Your task to perform on an android device: Add "razer huntsman" to the cart on amazon Image 0: 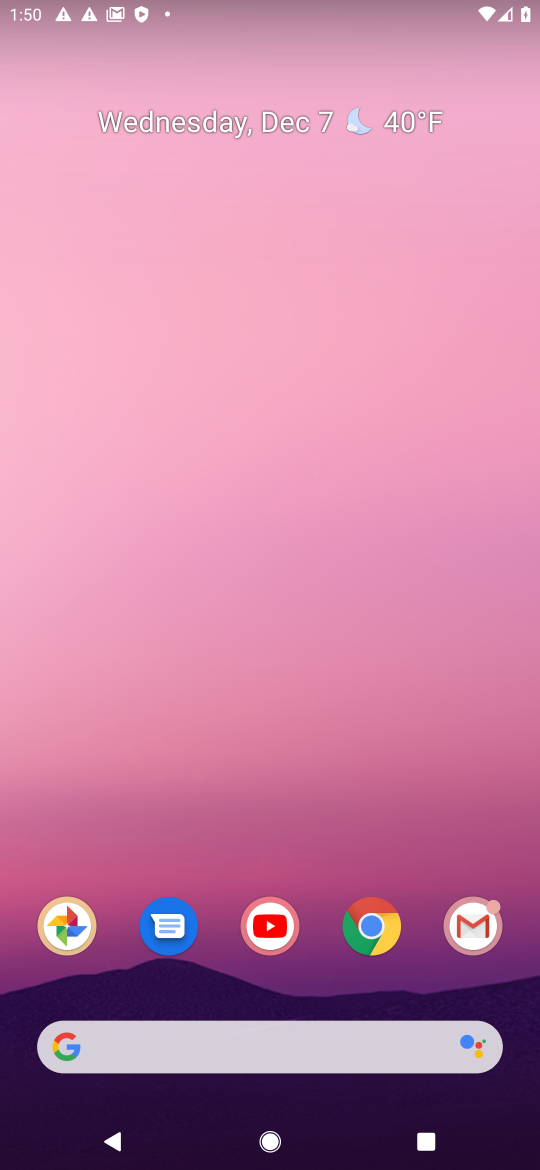
Step 0: drag from (387, 148) to (360, 270)
Your task to perform on an android device: Add "razer huntsman" to the cart on amazon Image 1: 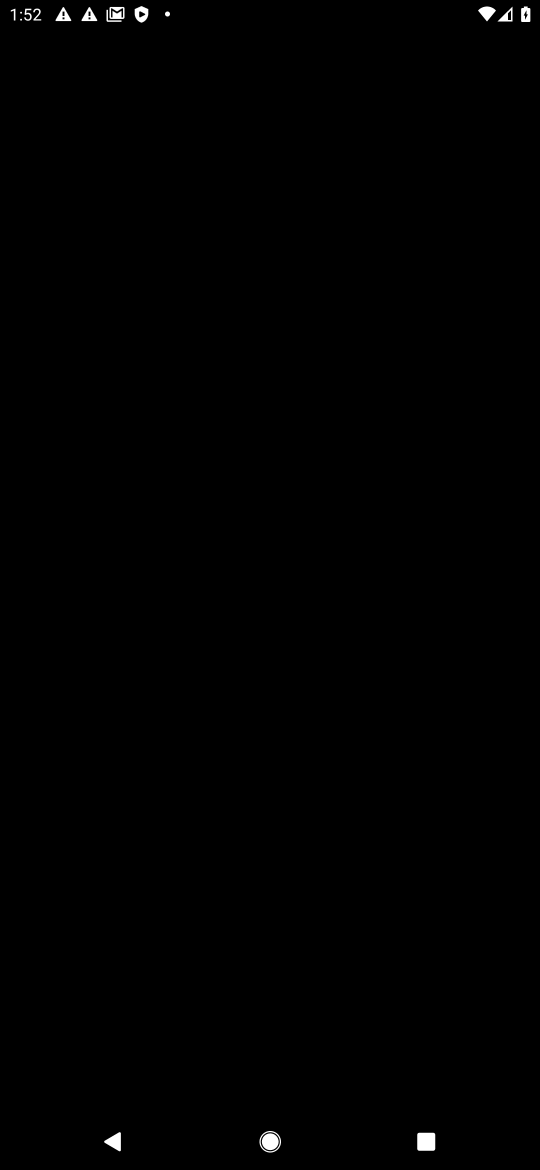
Step 1: press home button
Your task to perform on an android device: Add "razer huntsman" to the cart on amazon Image 2: 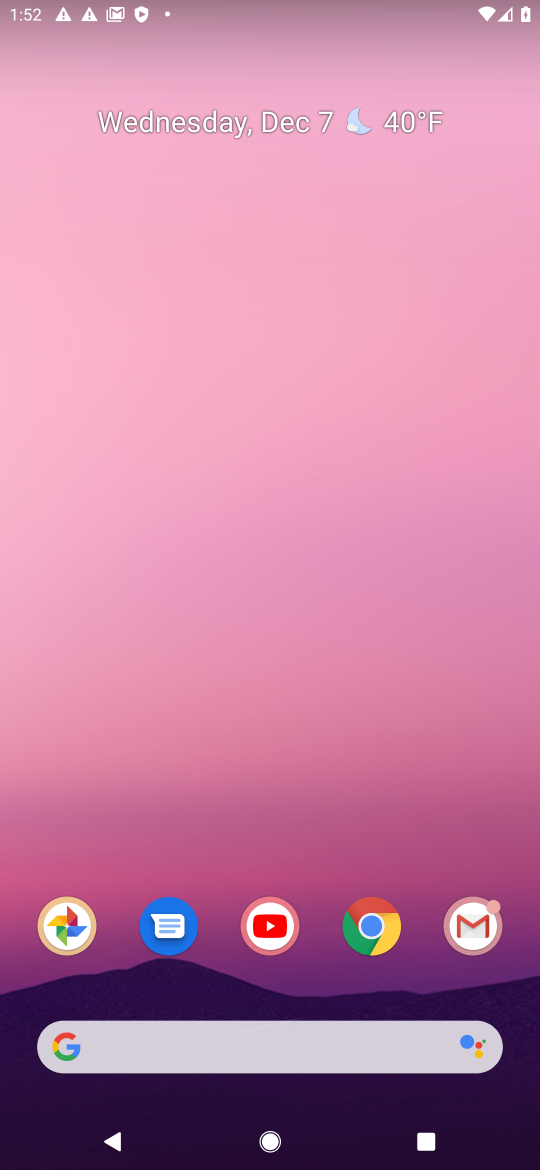
Step 2: drag from (145, 1048) to (251, 294)
Your task to perform on an android device: Add "razer huntsman" to the cart on amazon Image 3: 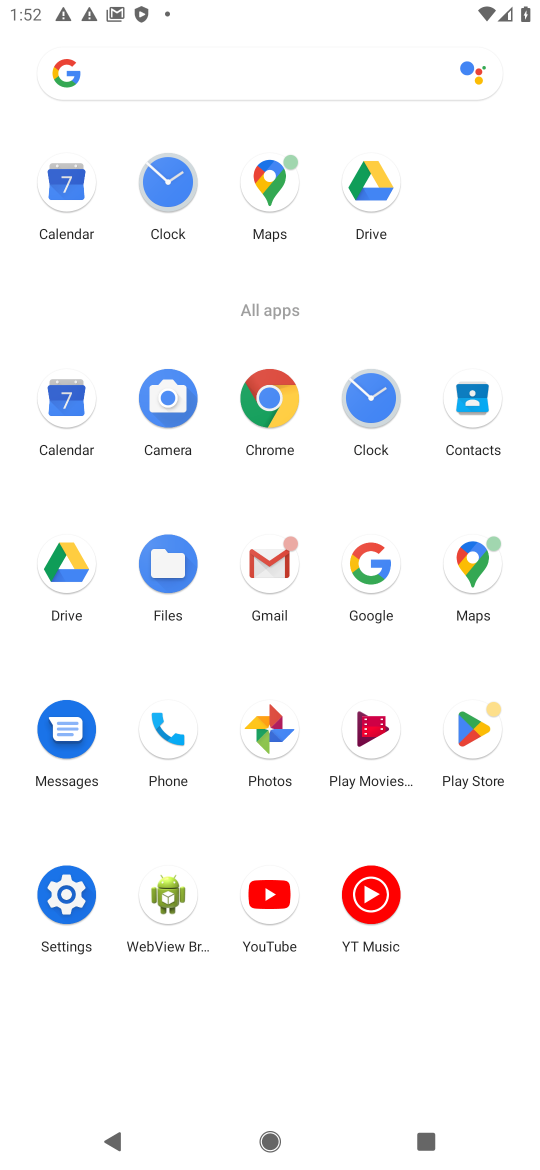
Step 3: click (355, 576)
Your task to perform on an android device: Add "razer huntsman" to the cart on amazon Image 4: 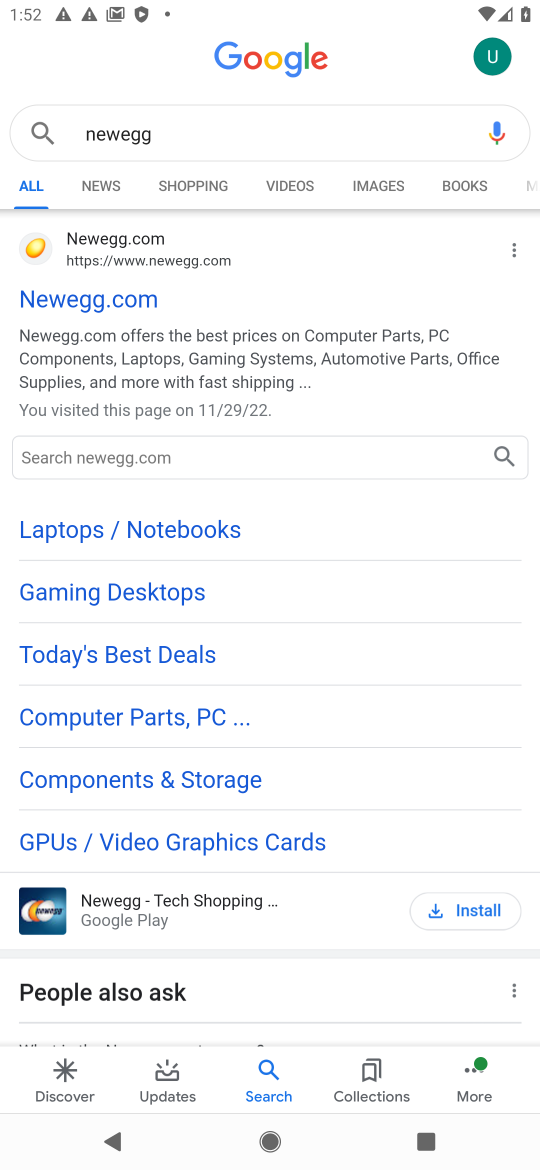
Step 4: click (112, 120)
Your task to perform on an android device: Add "razer huntsman" to the cart on amazon Image 5: 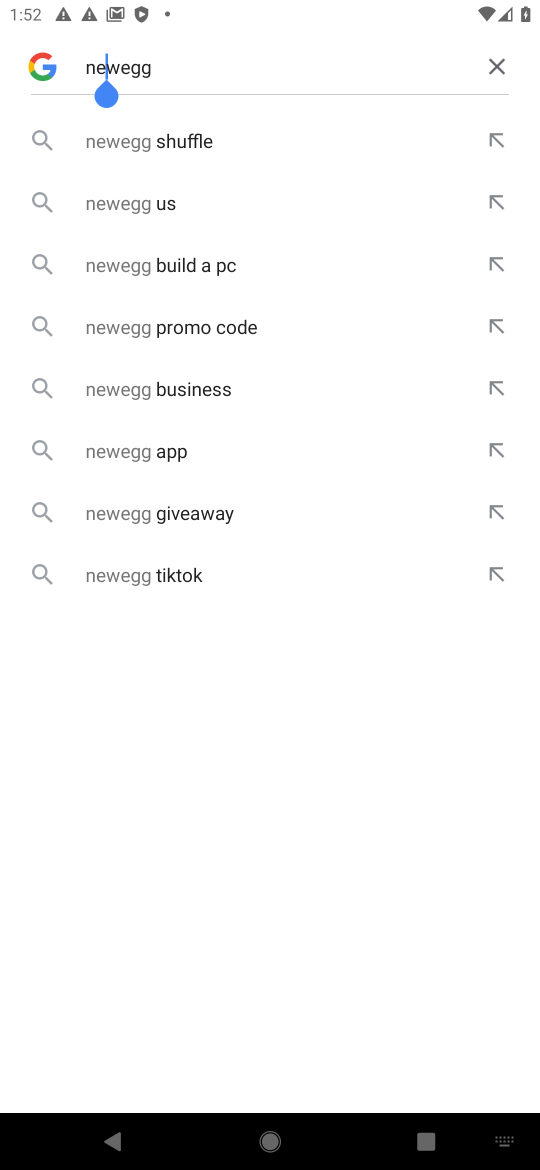
Step 5: click (496, 68)
Your task to perform on an android device: Add "razer huntsman" to the cart on amazon Image 6: 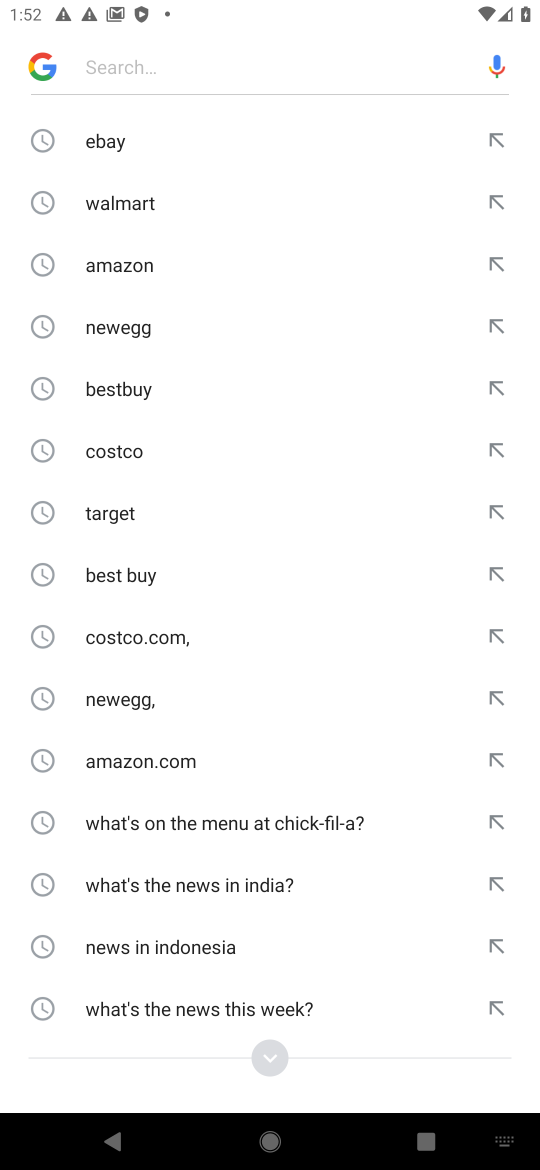
Step 6: click (139, 266)
Your task to perform on an android device: Add "razer huntsman" to the cart on amazon Image 7: 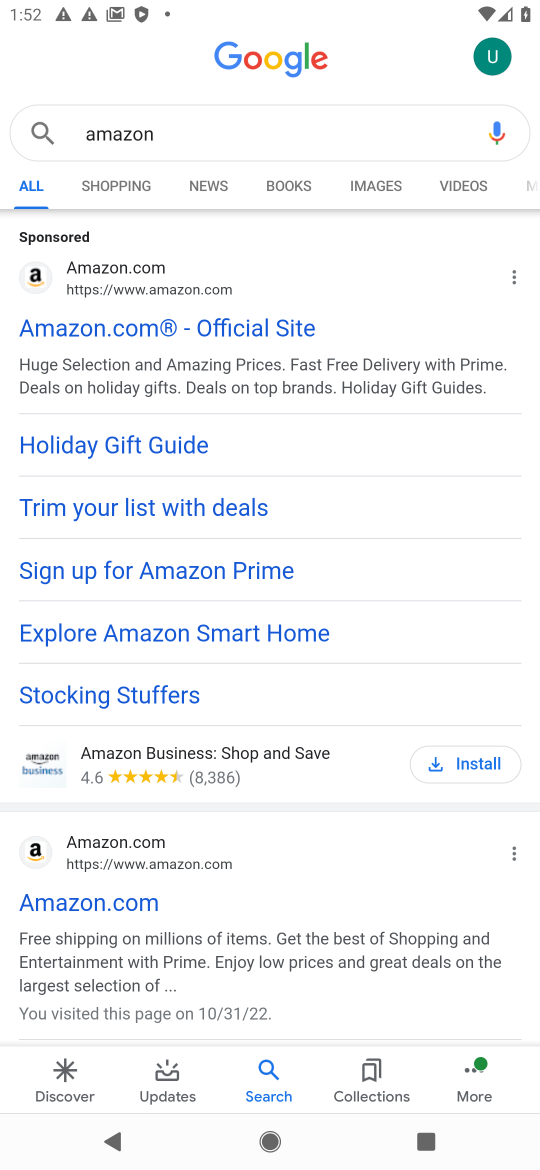
Step 7: click (135, 338)
Your task to perform on an android device: Add "razer huntsman" to the cart on amazon Image 8: 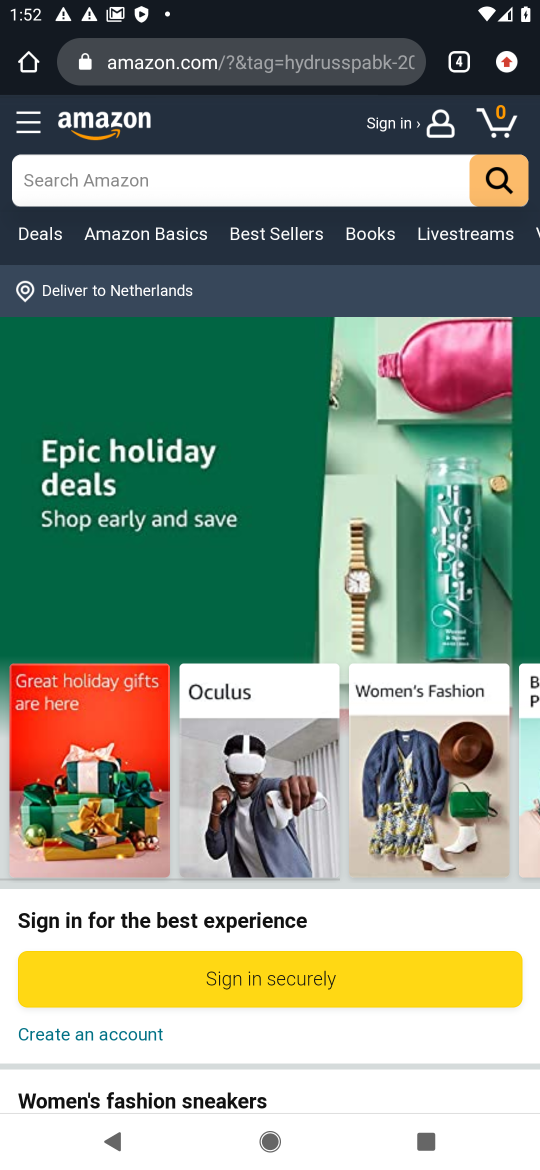
Step 8: click (147, 191)
Your task to perform on an android device: Add "razer huntsman" to the cart on amazon Image 9: 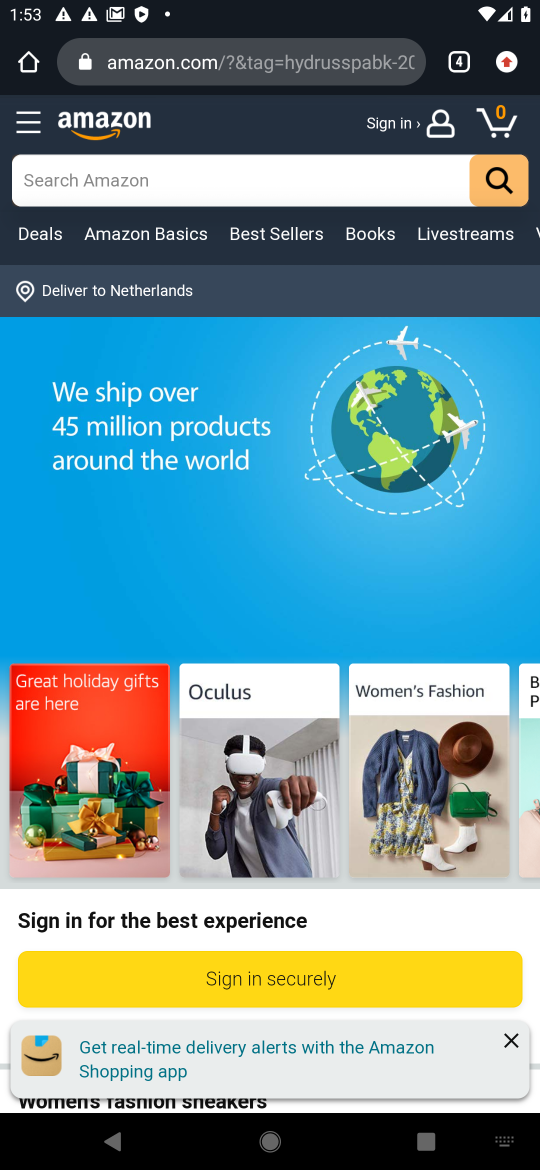
Step 9: type "razer huntsman"
Your task to perform on an android device: Add "razer huntsman" to the cart on amazon Image 10: 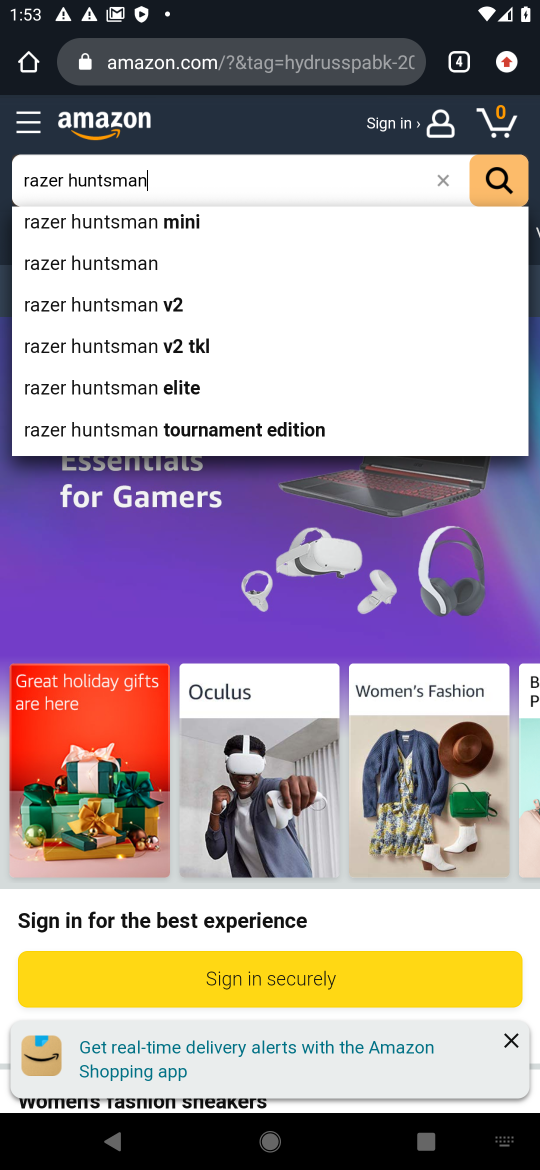
Step 10: click (107, 219)
Your task to perform on an android device: Add "razer huntsman" to the cart on amazon Image 11: 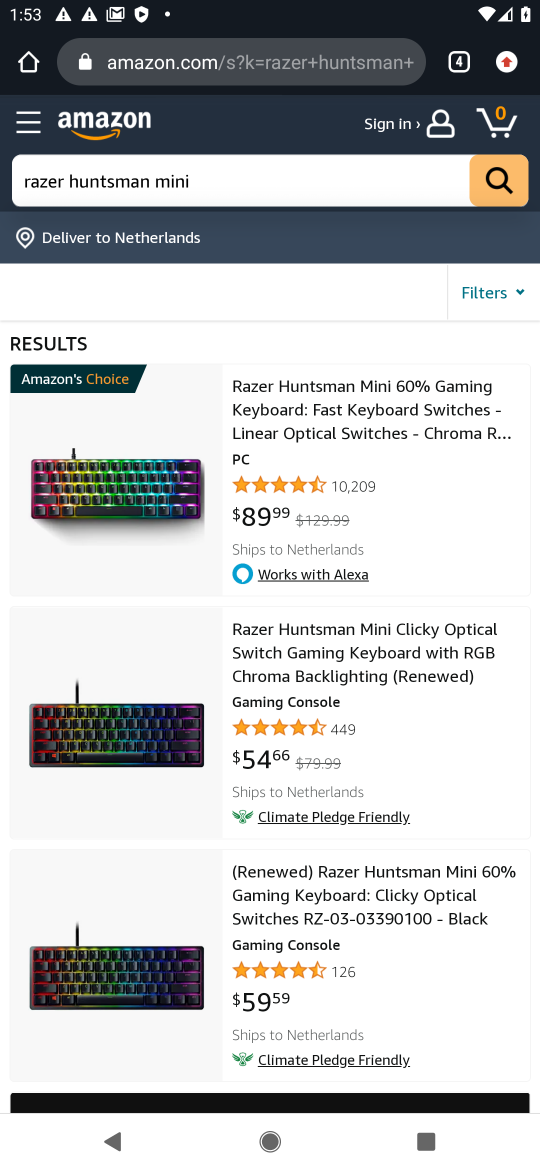
Step 11: click (286, 455)
Your task to perform on an android device: Add "razer huntsman" to the cart on amazon Image 12: 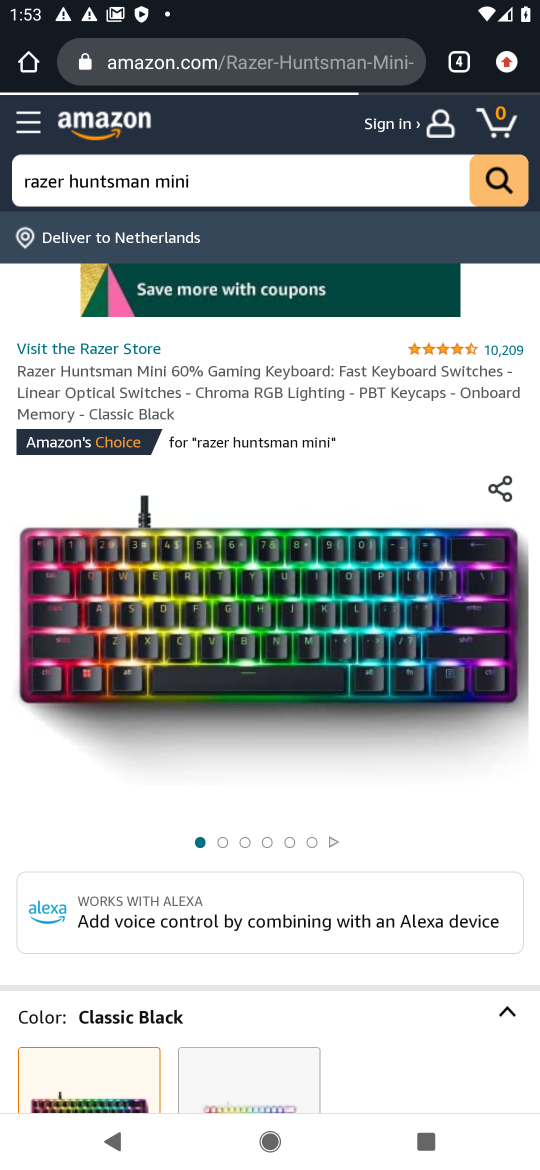
Step 12: drag from (273, 685) to (315, 299)
Your task to perform on an android device: Add "razer huntsman" to the cart on amazon Image 13: 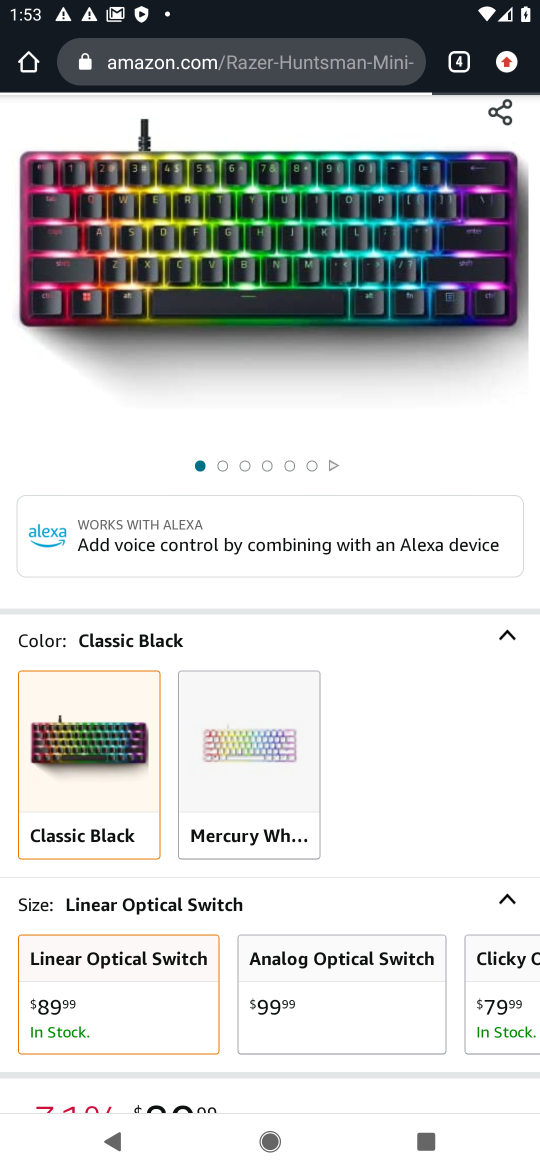
Step 13: drag from (251, 941) to (265, 454)
Your task to perform on an android device: Add "razer huntsman" to the cart on amazon Image 14: 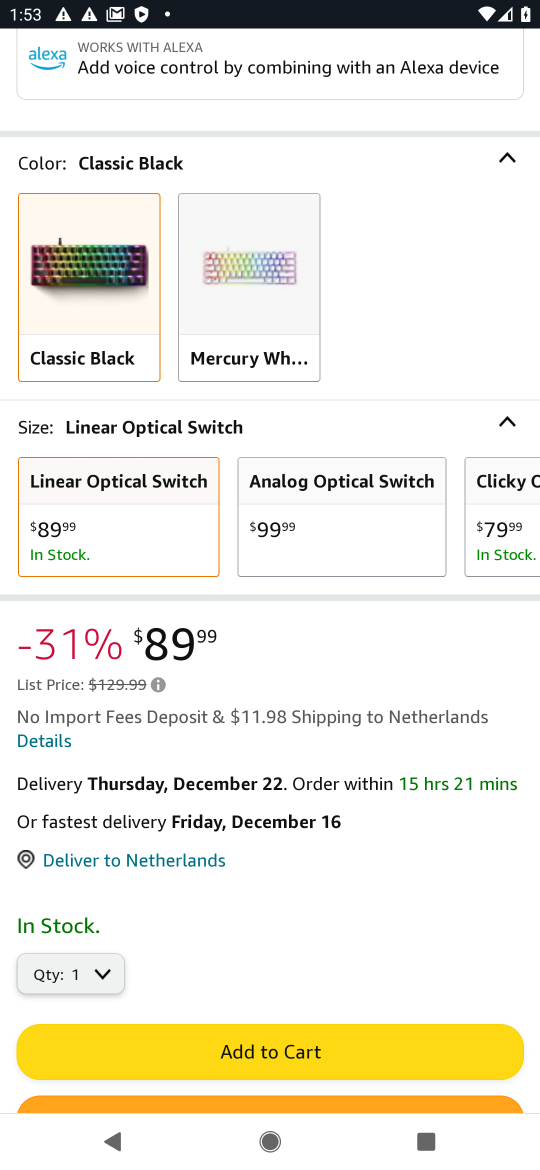
Step 14: click (227, 1047)
Your task to perform on an android device: Add "razer huntsman" to the cart on amazon Image 15: 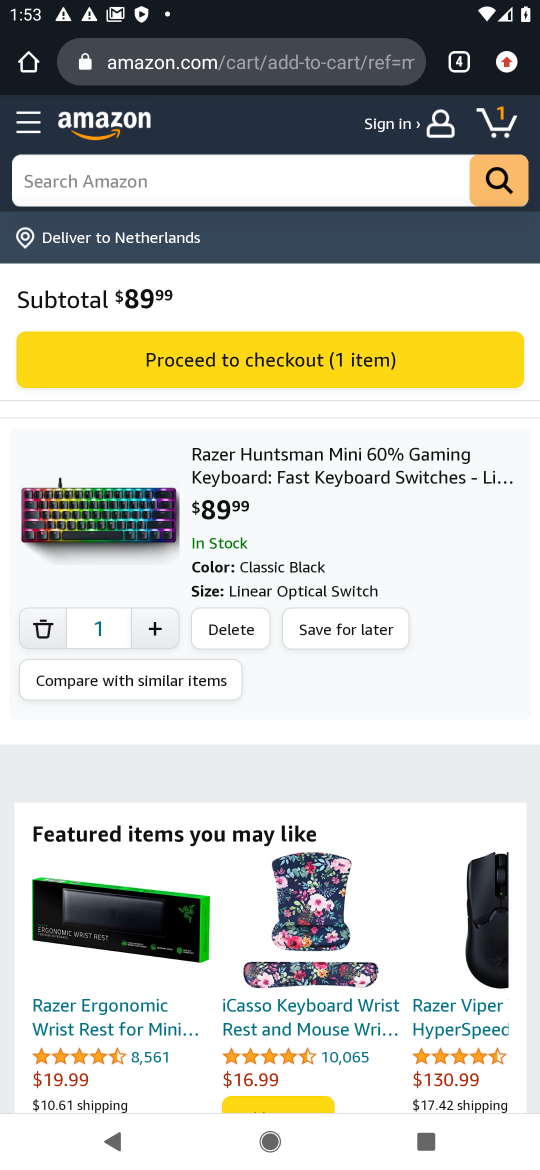
Step 15: task complete